Your task to perform on an android device: Do I have any events tomorrow? Image 0: 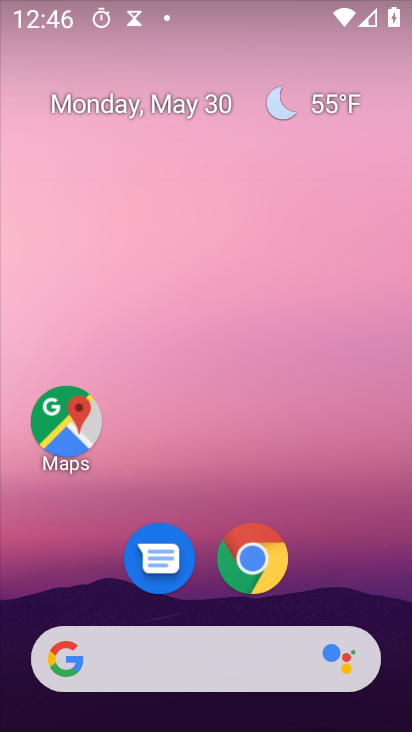
Step 0: drag from (337, 558) to (367, 137)
Your task to perform on an android device: Do I have any events tomorrow? Image 1: 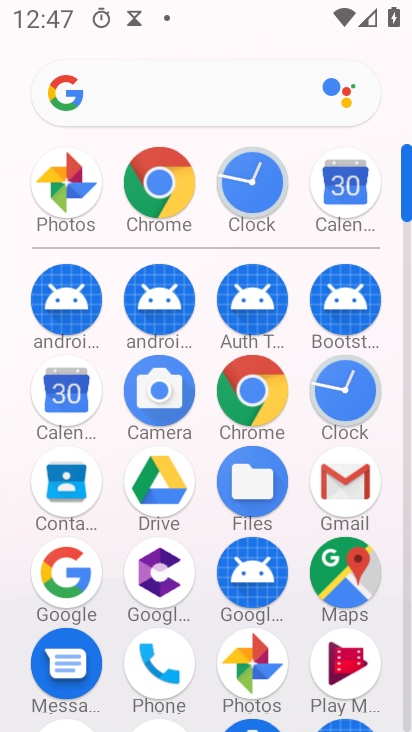
Step 1: click (41, 384)
Your task to perform on an android device: Do I have any events tomorrow? Image 2: 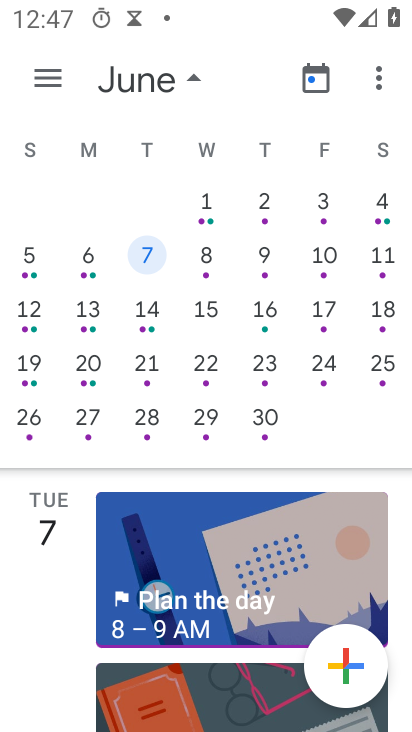
Step 2: click (204, 259)
Your task to perform on an android device: Do I have any events tomorrow? Image 3: 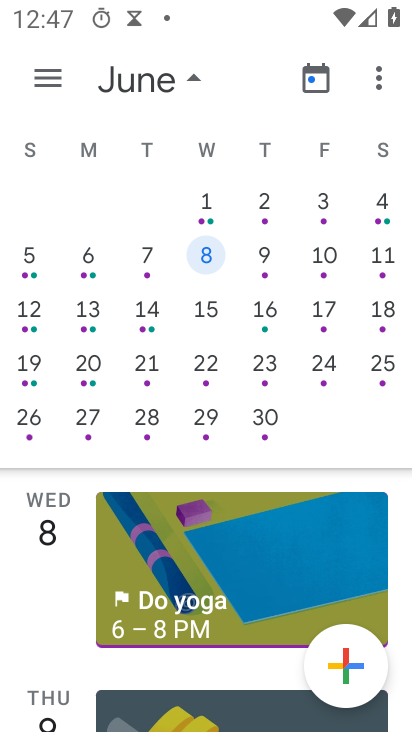
Step 3: task complete